Your task to perform on an android device: toggle show notifications on the lock screen Image 0: 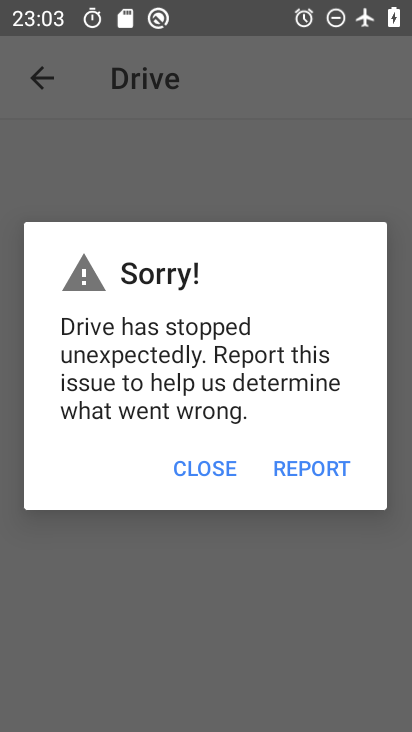
Step 0: press home button
Your task to perform on an android device: toggle show notifications on the lock screen Image 1: 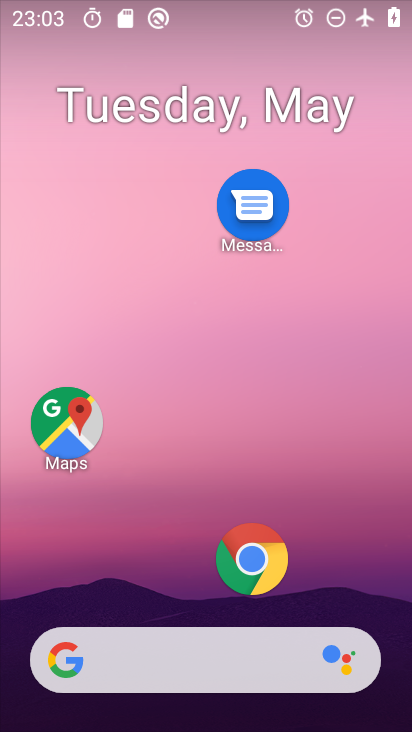
Step 1: drag from (177, 605) to (172, 223)
Your task to perform on an android device: toggle show notifications on the lock screen Image 2: 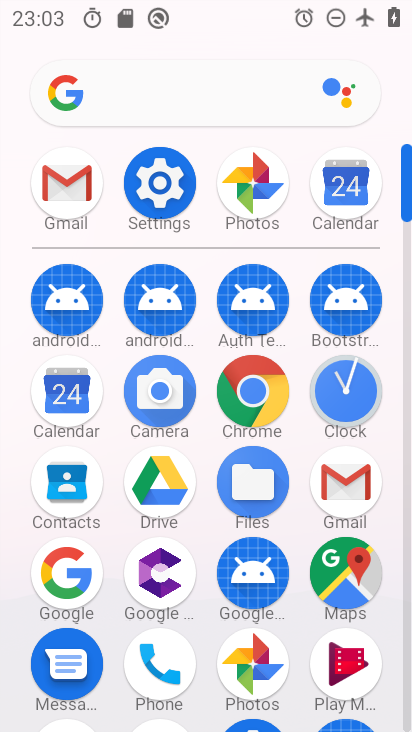
Step 2: click (170, 208)
Your task to perform on an android device: toggle show notifications on the lock screen Image 3: 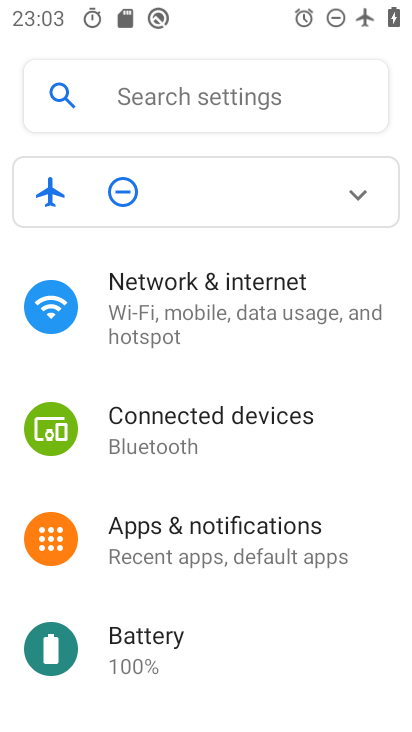
Step 3: drag from (231, 645) to (232, 514)
Your task to perform on an android device: toggle show notifications on the lock screen Image 4: 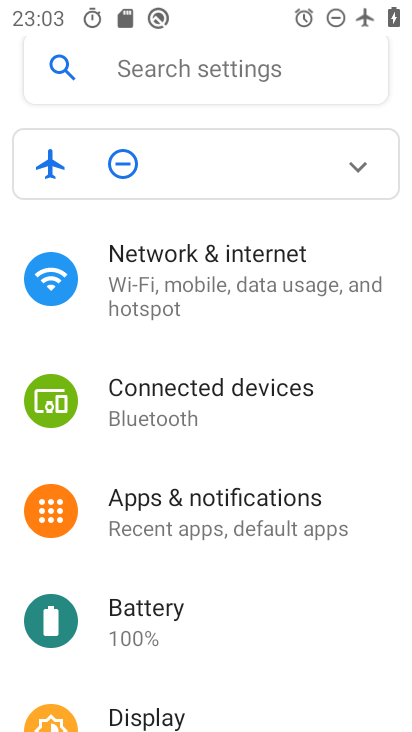
Step 4: click (236, 473)
Your task to perform on an android device: toggle show notifications on the lock screen Image 5: 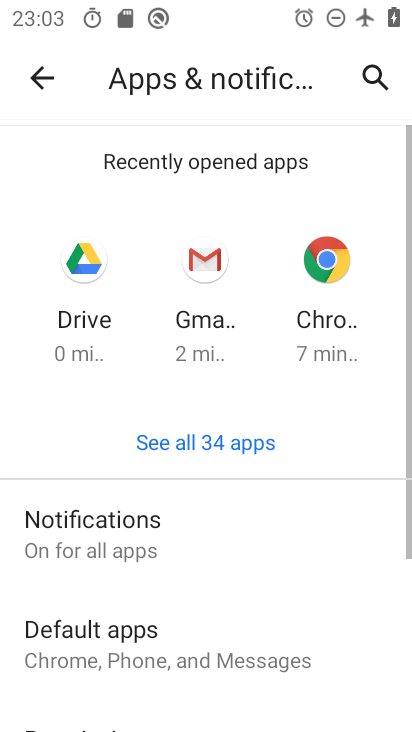
Step 5: click (226, 517)
Your task to perform on an android device: toggle show notifications on the lock screen Image 6: 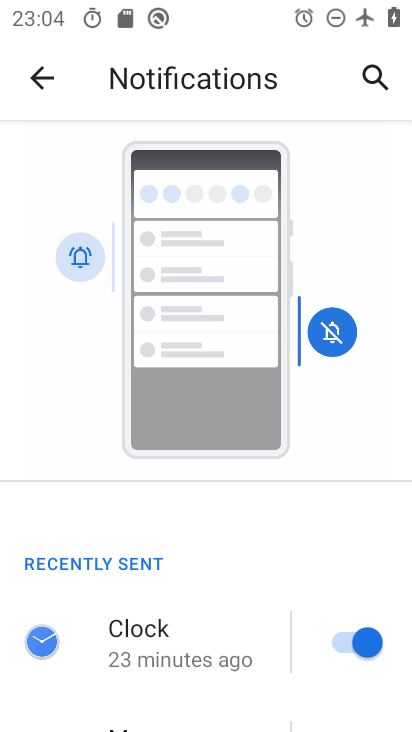
Step 6: press home button
Your task to perform on an android device: toggle show notifications on the lock screen Image 7: 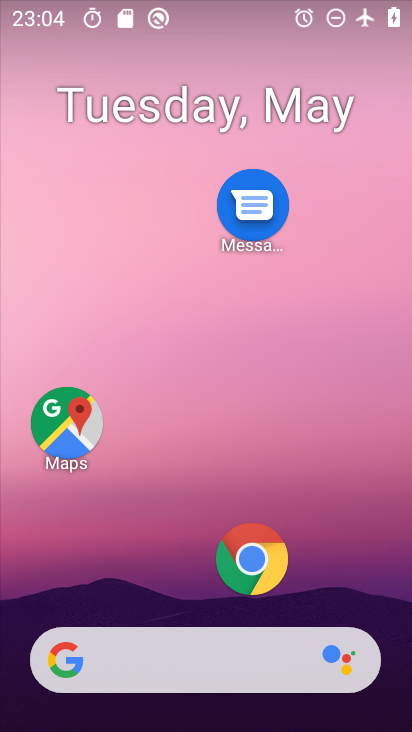
Step 7: drag from (168, 589) to (168, 238)
Your task to perform on an android device: toggle show notifications on the lock screen Image 8: 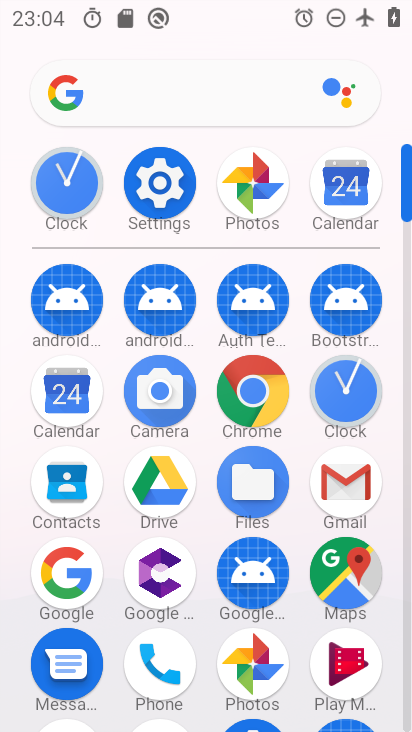
Step 8: click (164, 181)
Your task to perform on an android device: toggle show notifications on the lock screen Image 9: 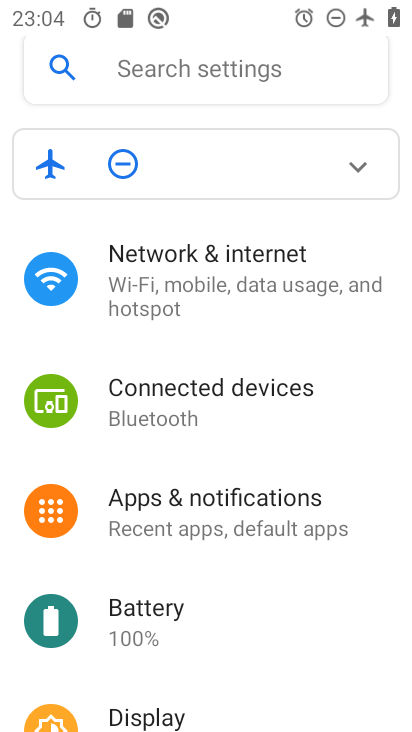
Step 9: click (178, 483)
Your task to perform on an android device: toggle show notifications on the lock screen Image 10: 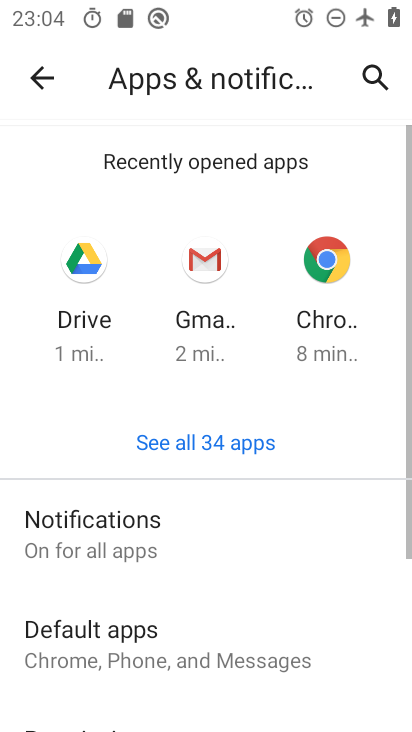
Step 10: click (178, 547)
Your task to perform on an android device: toggle show notifications on the lock screen Image 11: 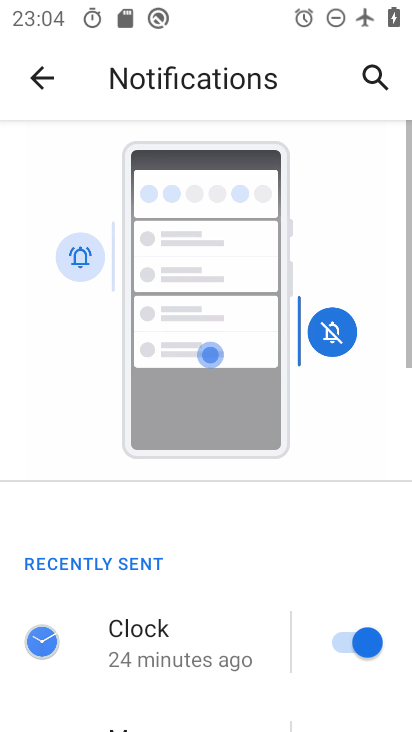
Step 11: drag from (213, 657) to (217, 175)
Your task to perform on an android device: toggle show notifications on the lock screen Image 12: 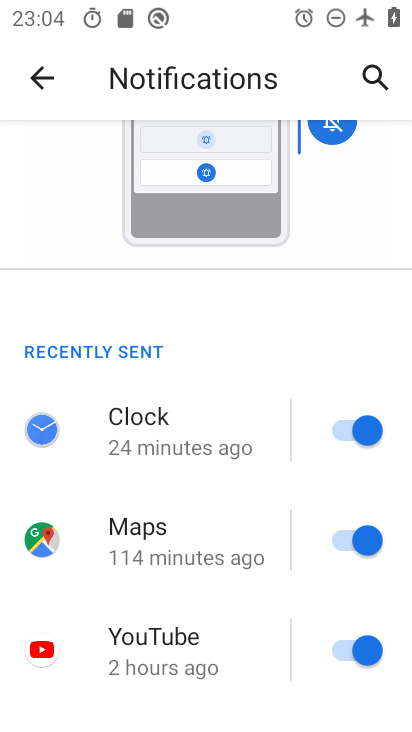
Step 12: drag from (251, 625) to (235, 180)
Your task to perform on an android device: toggle show notifications on the lock screen Image 13: 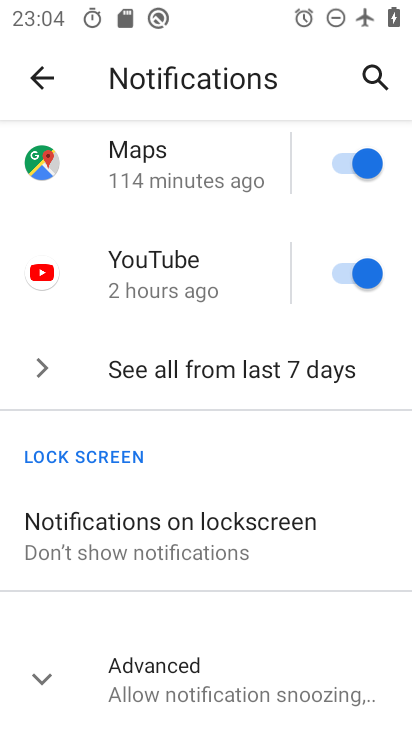
Step 13: click (235, 549)
Your task to perform on an android device: toggle show notifications on the lock screen Image 14: 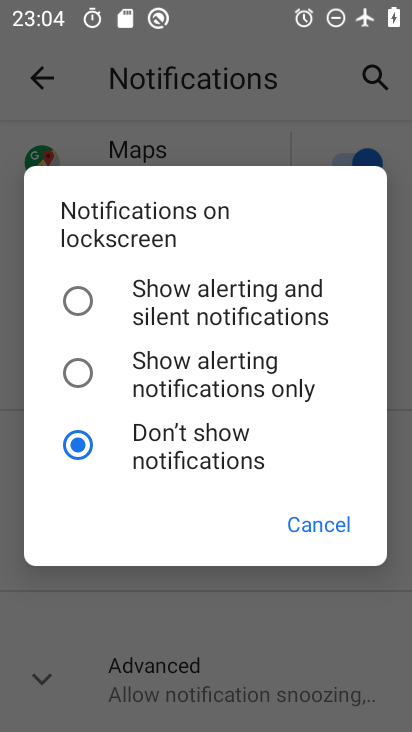
Step 14: click (219, 312)
Your task to perform on an android device: toggle show notifications on the lock screen Image 15: 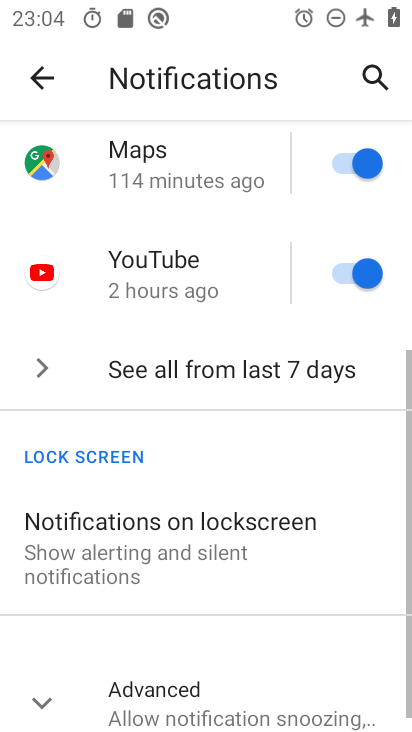
Step 15: task complete